Your task to perform on an android device: Open display settings Image 0: 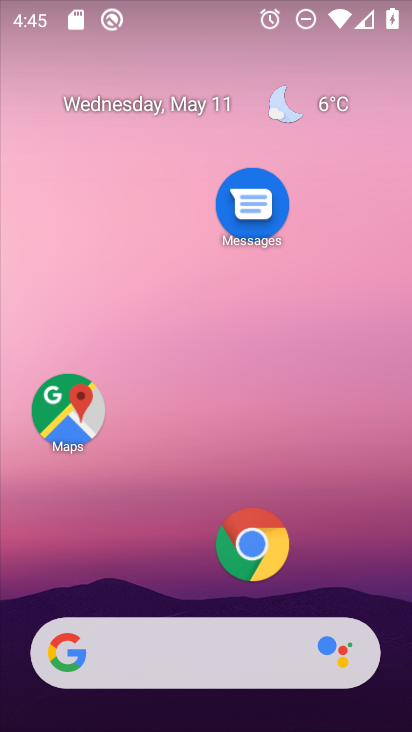
Step 0: drag from (129, 566) to (248, 119)
Your task to perform on an android device: Open display settings Image 1: 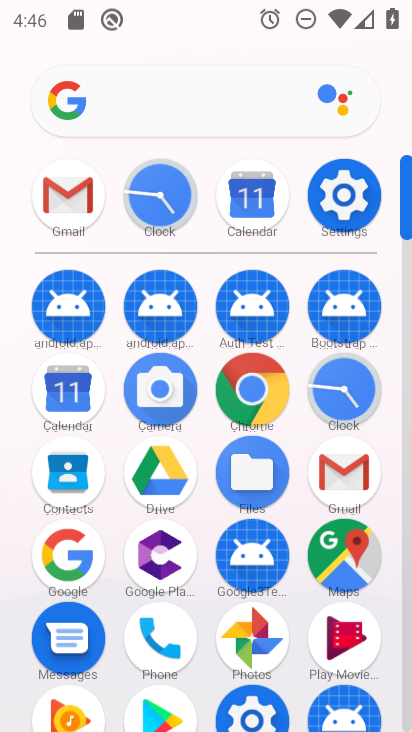
Step 1: click (329, 192)
Your task to perform on an android device: Open display settings Image 2: 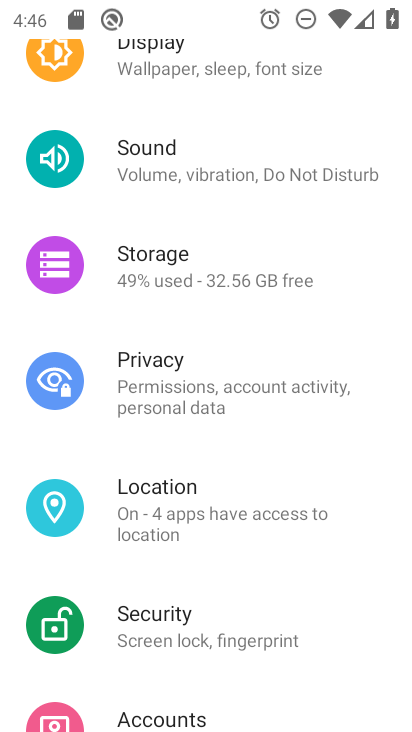
Step 2: click (164, 68)
Your task to perform on an android device: Open display settings Image 3: 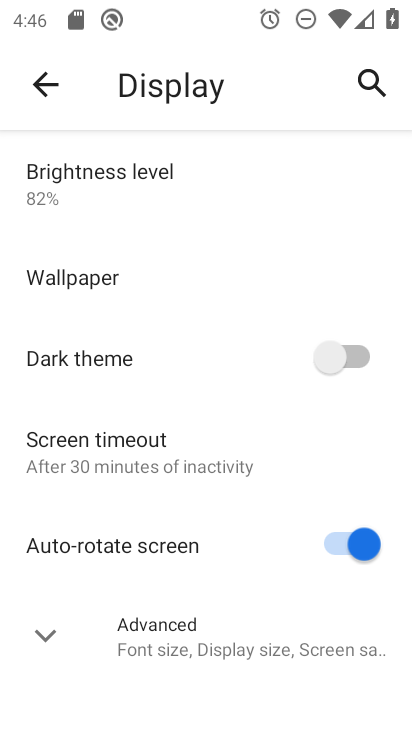
Step 3: task complete